Your task to perform on an android device: change notification settings in the gmail app Image 0: 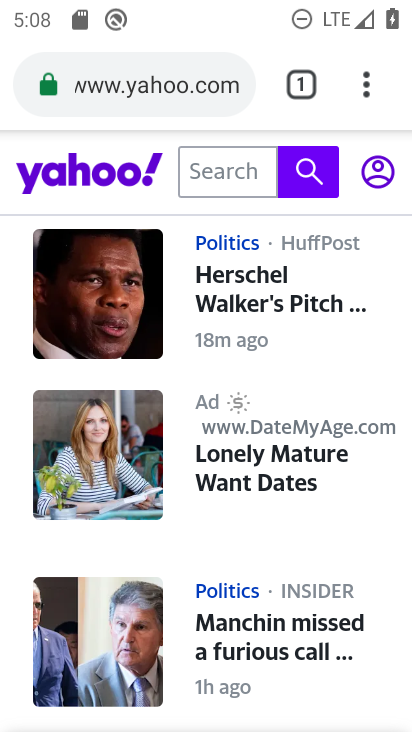
Step 0: press home button
Your task to perform on an android device: change notification settings in the gmail app Image 1: 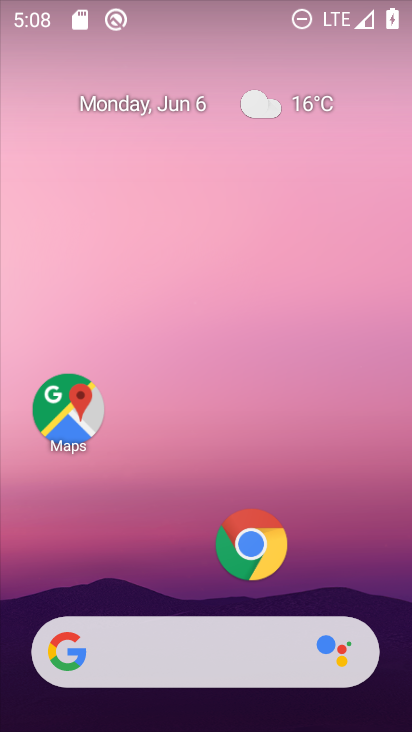
Step 1: drag from (193, 296) to (193, 52)
Your task to perform on an android device: change notification settings in the gmail app Image 2: 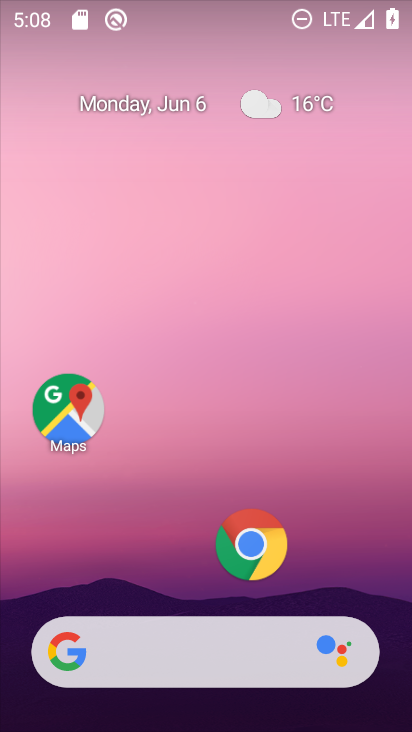
Step 2: drag from (190, 587) to (189, 31)
Your task to perform on an android device: change notification settings in the gmail app Image 3: 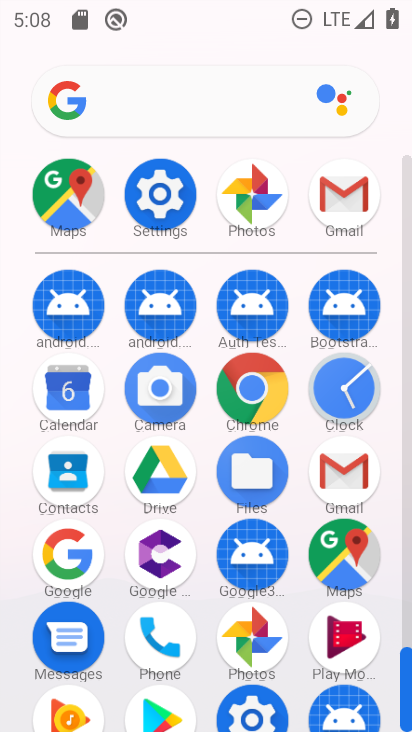
Step 3: click (339, 179)
Your task to perform on an android device: change notification settings in the gmail app Image 4: 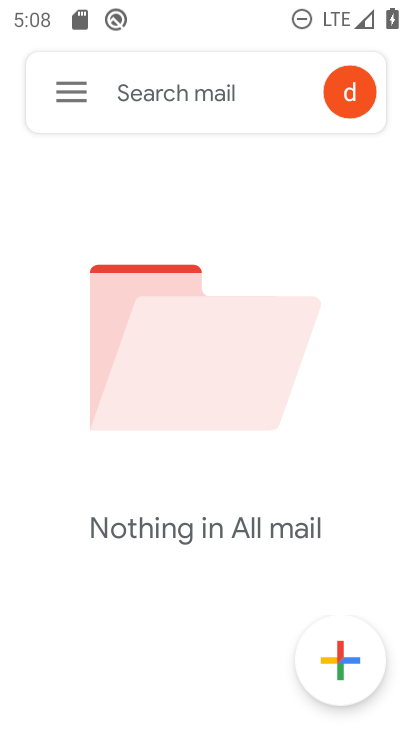
Step 4: click (74, 88)
Your task to perform on an android device: change notification settings in the gmail app Image 5: 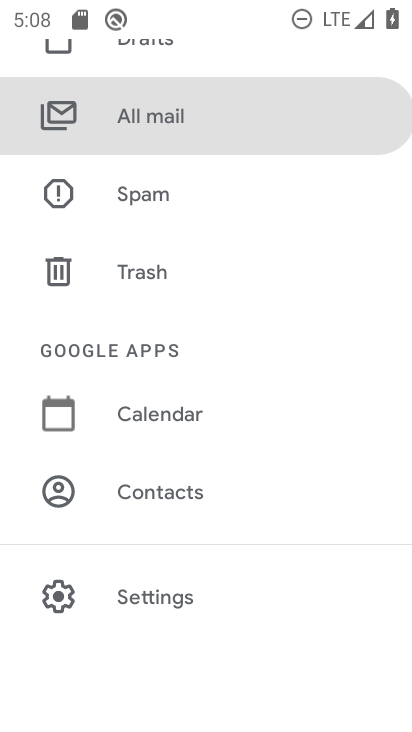
Step 5: click (187, 595)
Your task to perform on an android device: change notification settings in the gmail app Image 6: 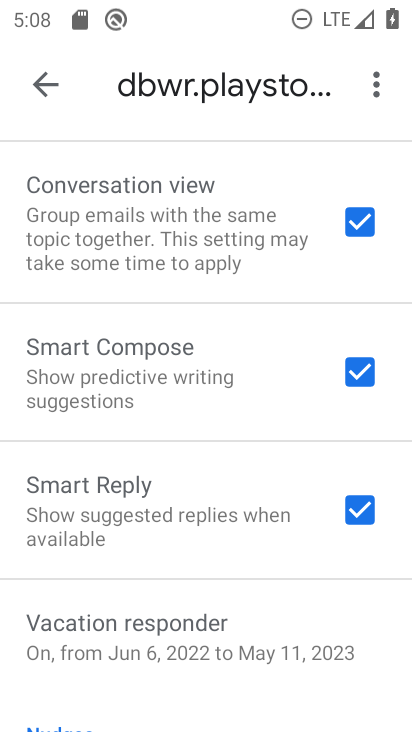
Step 6: click (57, 83)
Your task to perform on an android device: change notification settings in the gmail app Image 7: 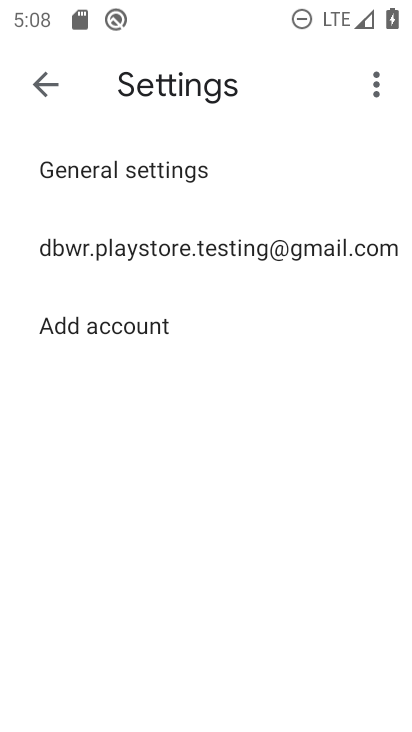
Step 7: click (223, 166)
Your task to perform on an android device: change notification settings in the gmail app Image 8: 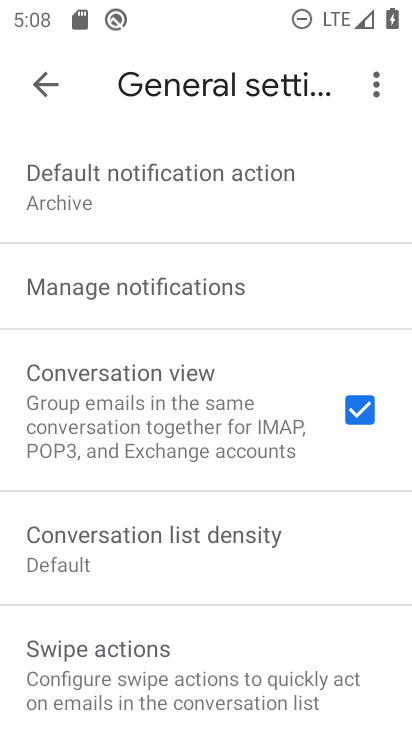
Step 8: click (254, 285)
Your task to perform on an android device: change notification settings in the gmail app Image 9: 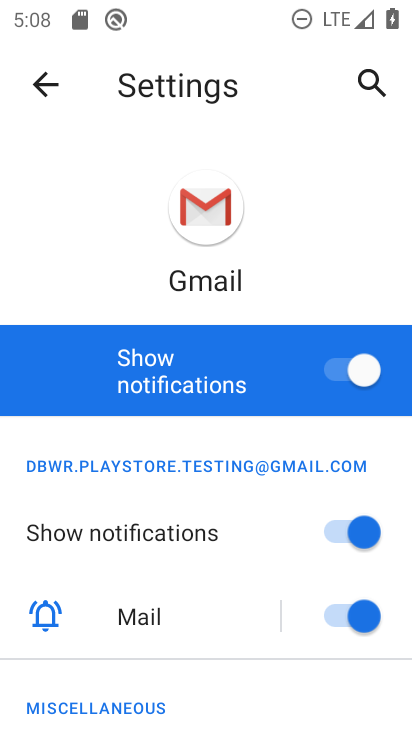
Step 9: click (338, 364)
Your task to perform on an android device: change notification settings in the gmail app Image 10: 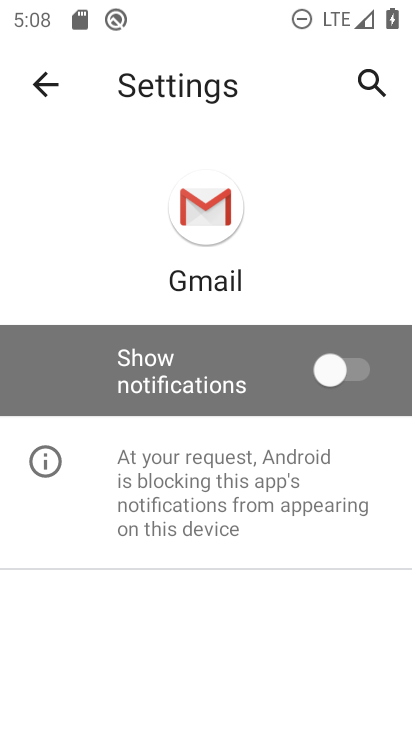
Step 10: task complete